Your task to perform on an android device: change alarm snooze length Image 0: 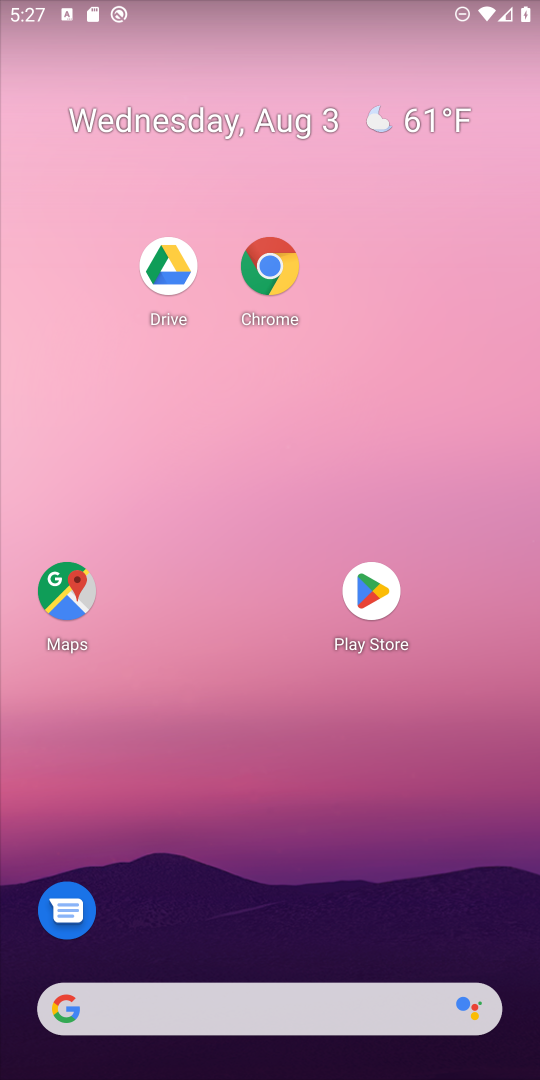
Step 0: drag from (336, 854) to (444, 55)
Your task to perform on an android device: change alarm snooze length Image 1: 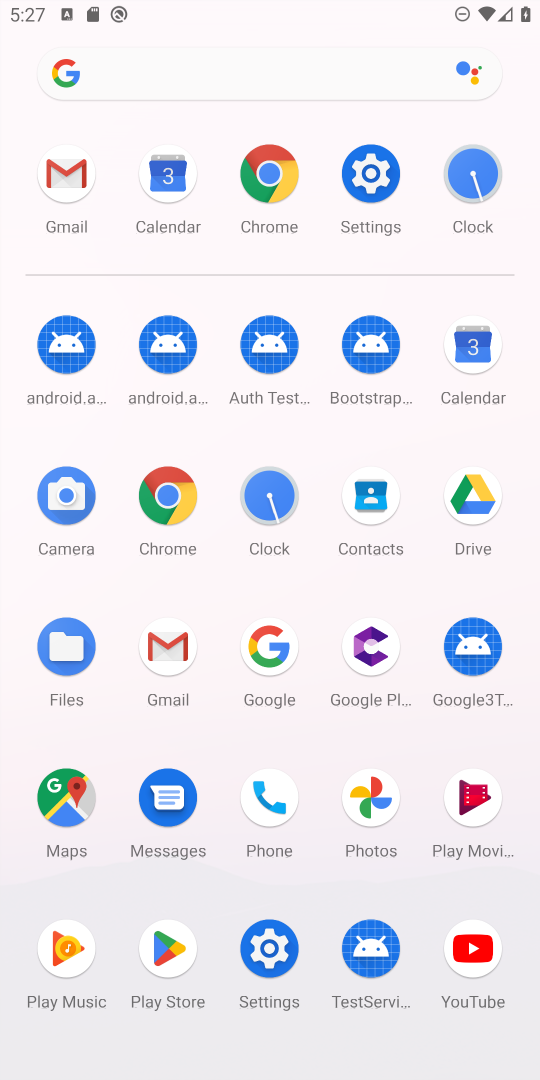
Step 1: click (264, 496)
Your task to perform on an android device: change alarm snooze length Image 2: 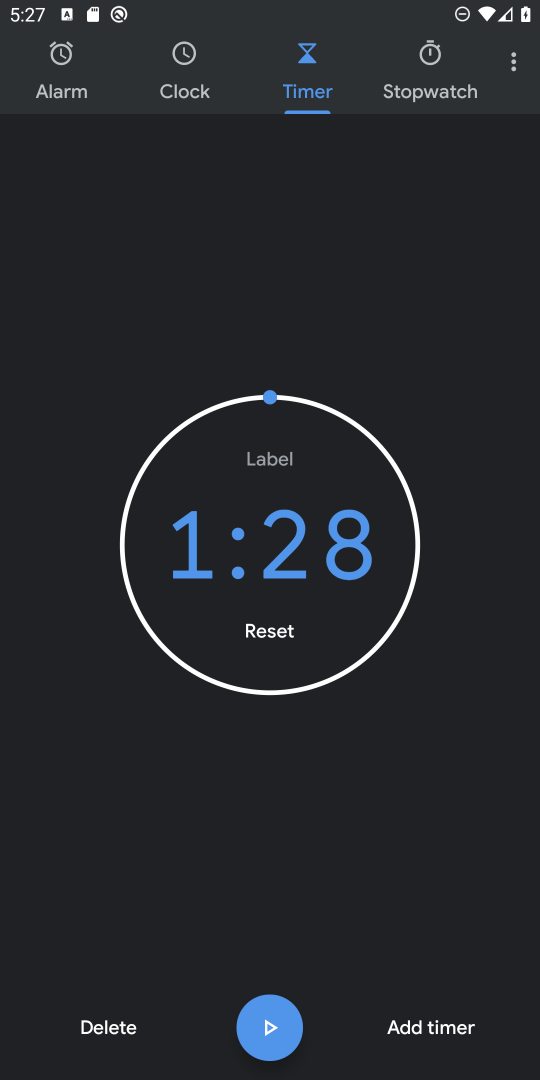
Step 2: click (513, 60)
Your task to perform on an android device: change alarm snooze length Image 3: 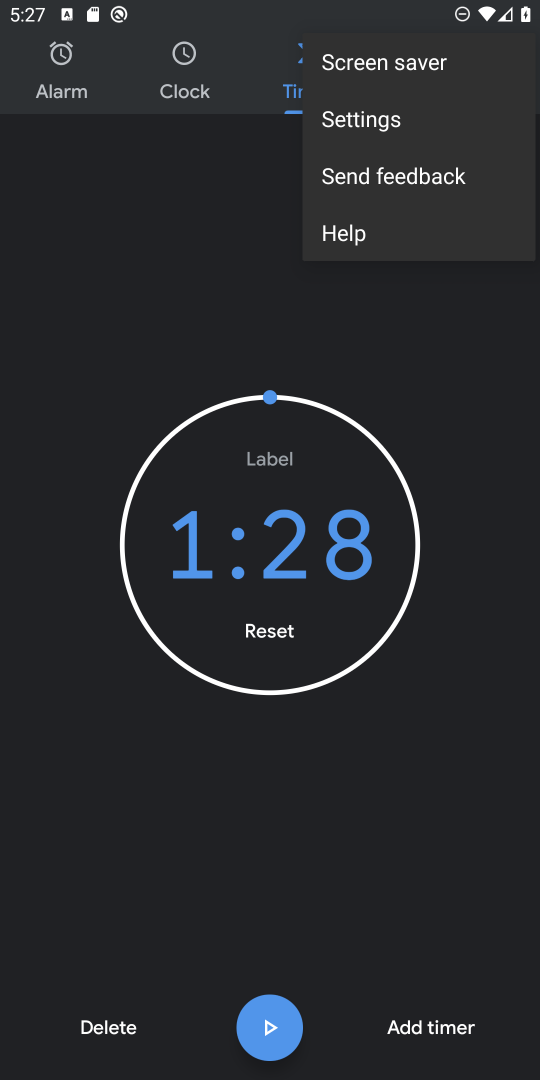
Step 3: click (391, 109)
Your task to perform on an android device: change alarm snooze length Image 4: 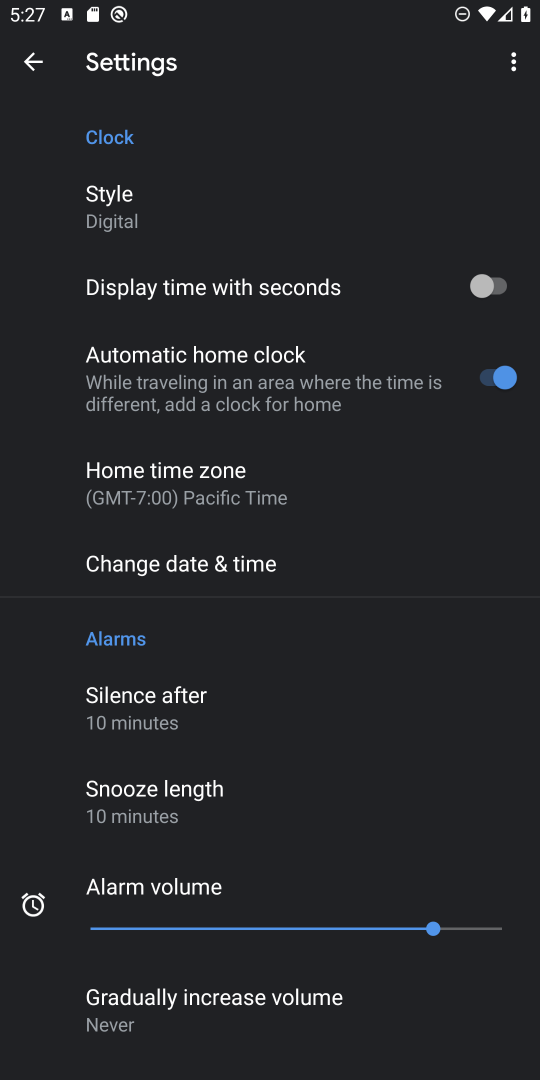
Step 4: click (175, 813)
Your task to perform on an android device: change alarm snooze length Image 5: 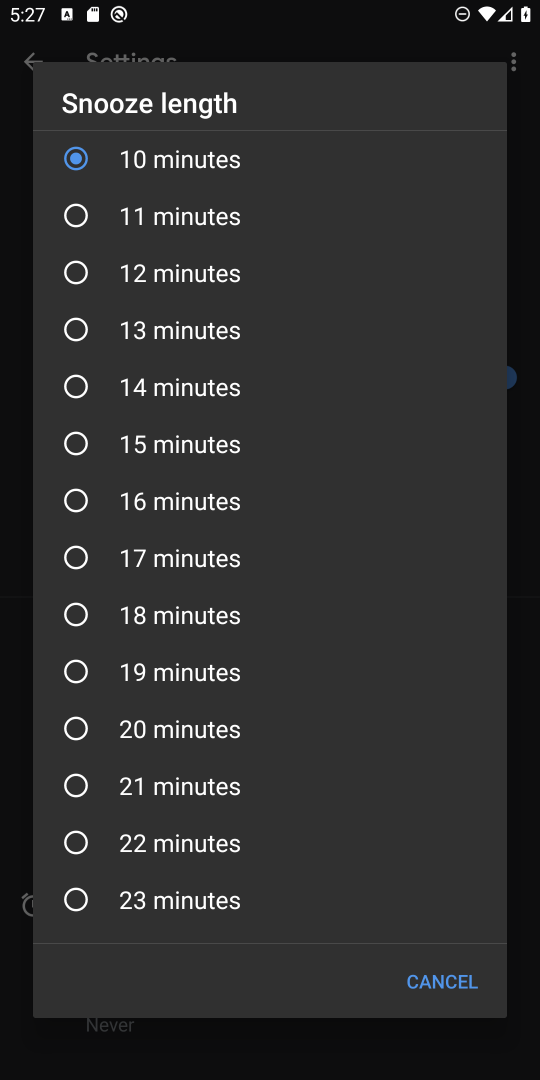
Step 5: click (75, 208)
Your task to perform on an android device: change alarm snooze length Image 6: 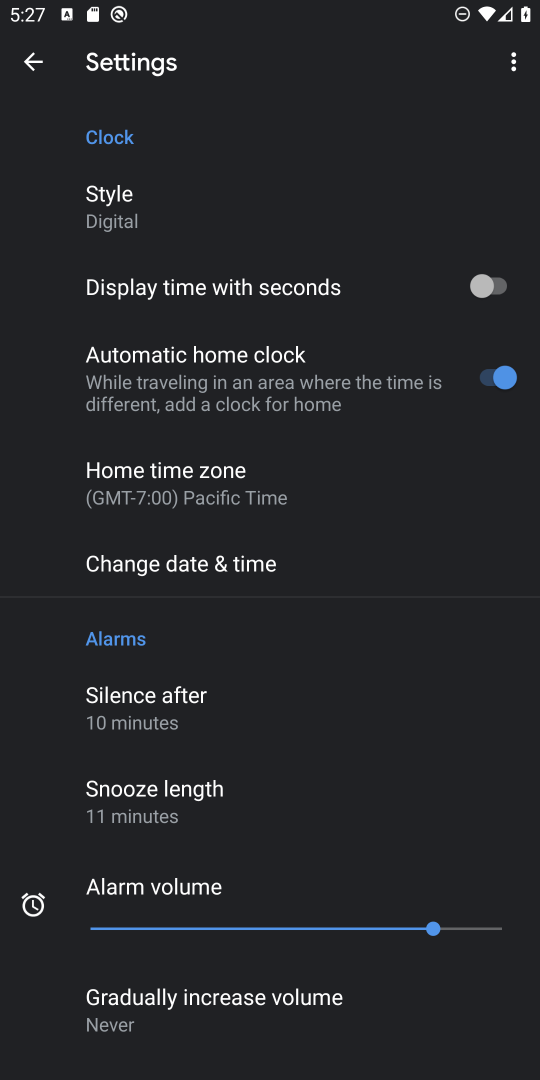
Step 6: task complete